Your task to perform on an android device: What is the news today? Image 0: 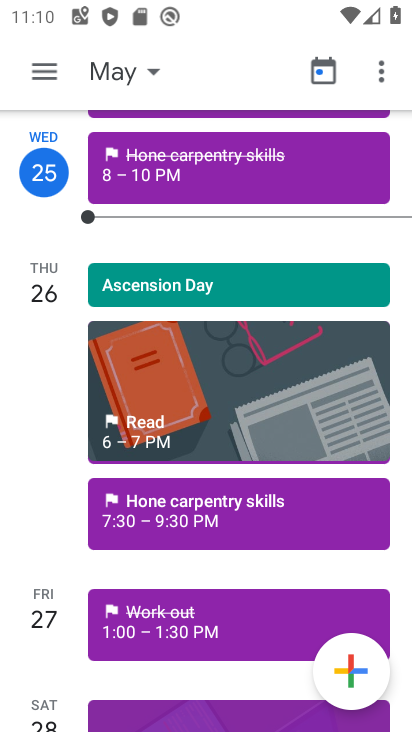
Step 0: press home button
Your task to perform on an android device: What is the news today? Image 1: 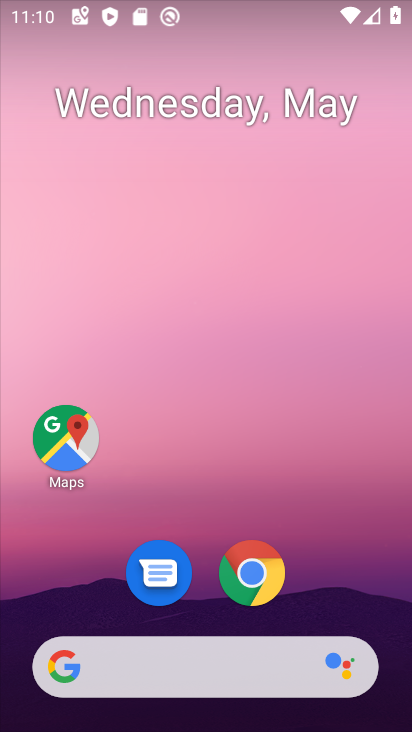
Step 1: click (179, 664)
Your task to perform on an android device: What is the news today? Image 2: 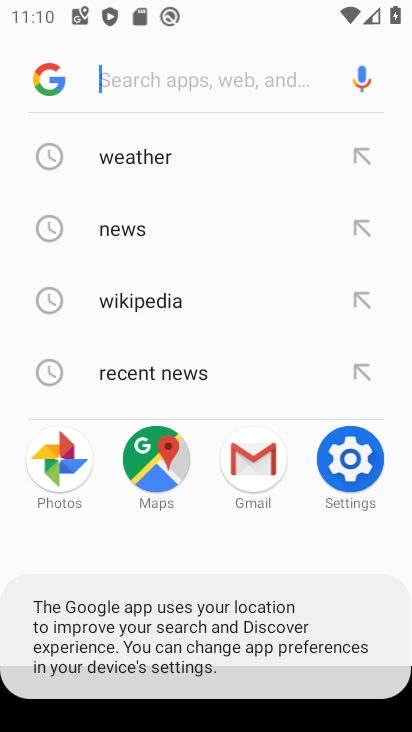
Step 2: click (123, 221)
Your task to perform on an android device: What is the news today? Image 3: 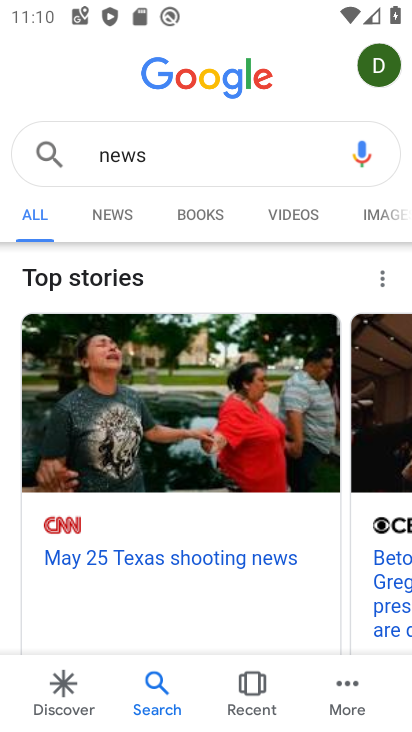
Step 3: task complete